Your task to perform on an android device: Open the web browser Image 0: 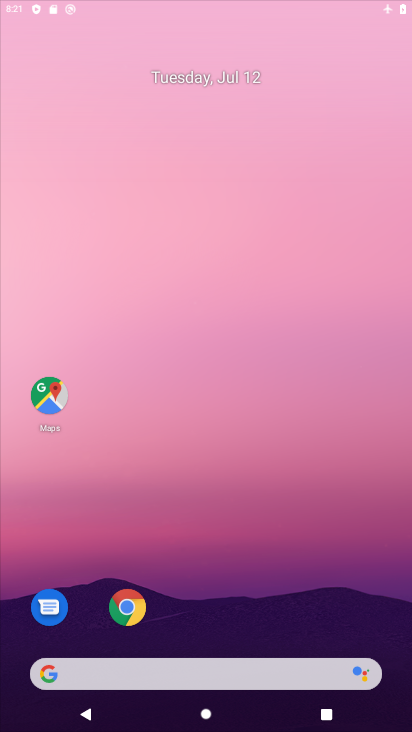
Step 0: drag from (209, 645) to (170, 99)
Your task to perform on an android device: Open the web browser Image 1: 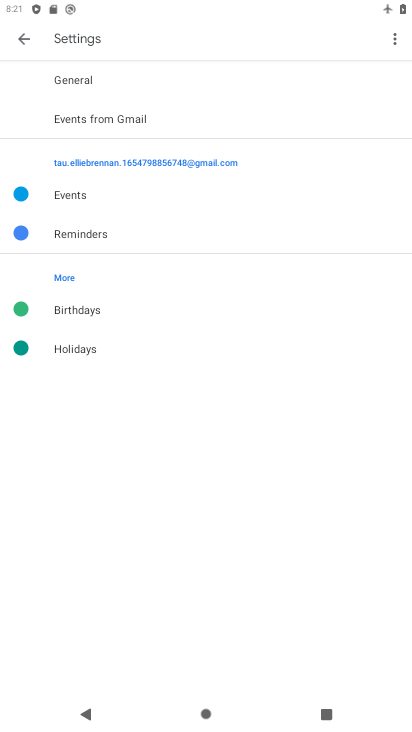
Step 1: press home button
Your task to perform on an android device: Open the web browser Image 2: 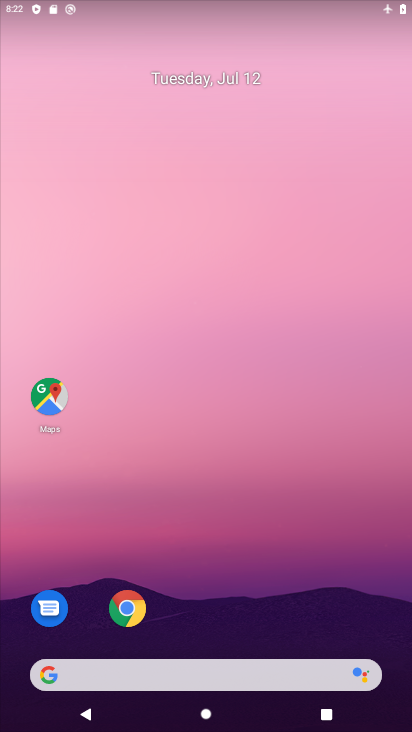
Step 2: click (189, 679)
Your task to perform on an android device: Open the web browser Image 3: 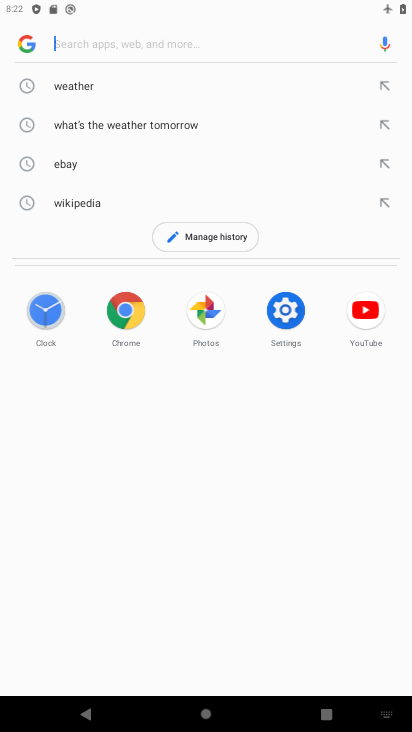
Step 3: task complete